Your task to perform on an android device: turn off translation in the chrome app Image 0: 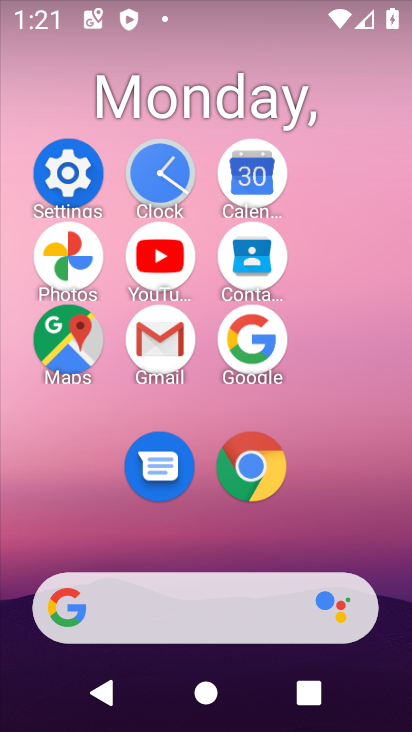
Step 0: click (273, 477)
Your task to perform on an android device: turn off translation in the chrome app Image 1: 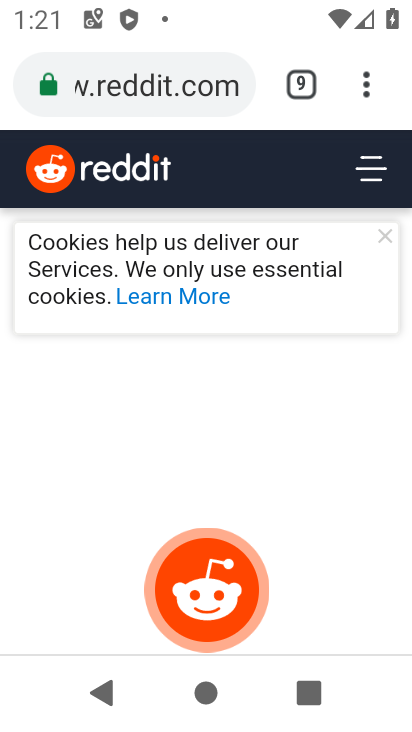
Step 1: click (369, 90)
Your task to perform on an android device: turn off translation in the chrome app Image 2: 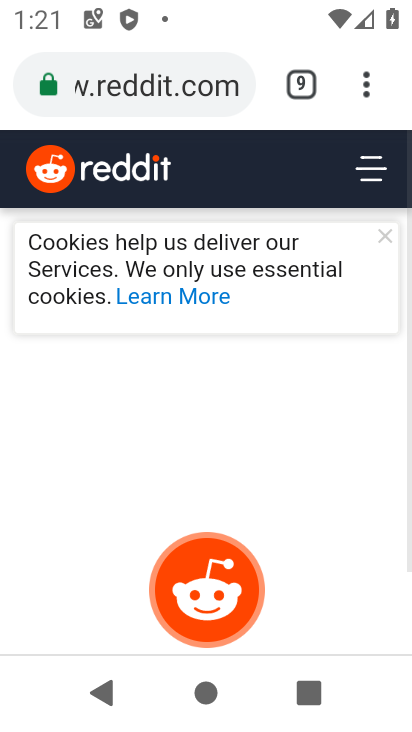
Step 2: click (351, 79)
Your task to perform on an android device: turn off translation in the chrome app Image 3: 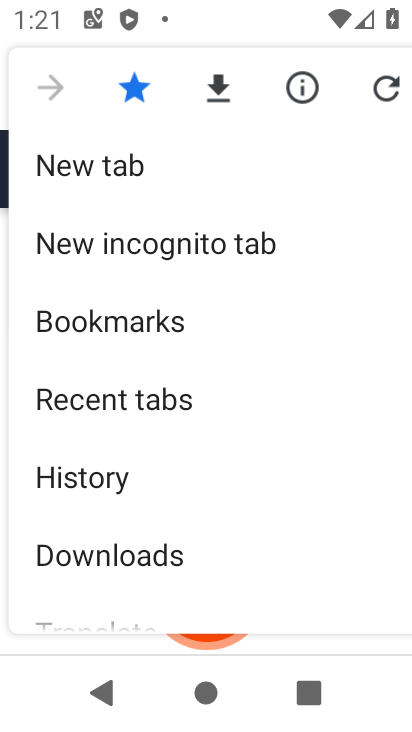
Step 3: drag from (209, 514) to (231, 81)
Your task to perform on an android device: turn off translation in the chrome app Image 4: 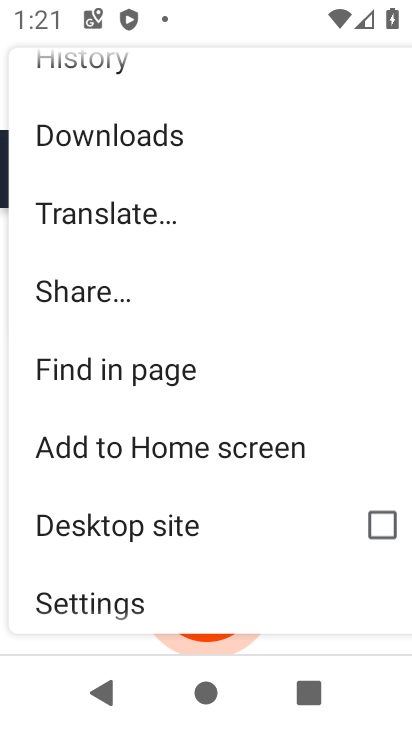
Step 4: click (105, 583)
Your task to perform on an android device: turn off translation in the chrome app Image 5: 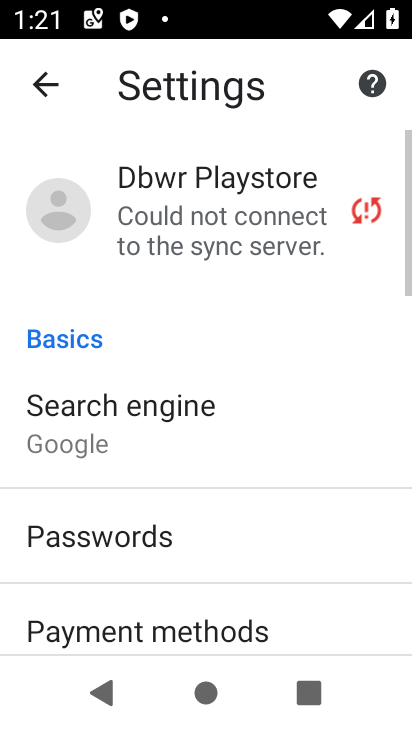
Step 5: drag from (126, 549) to (152, 165)
Your task to perform on an android device: turn off translation in the chrome app Image 6: 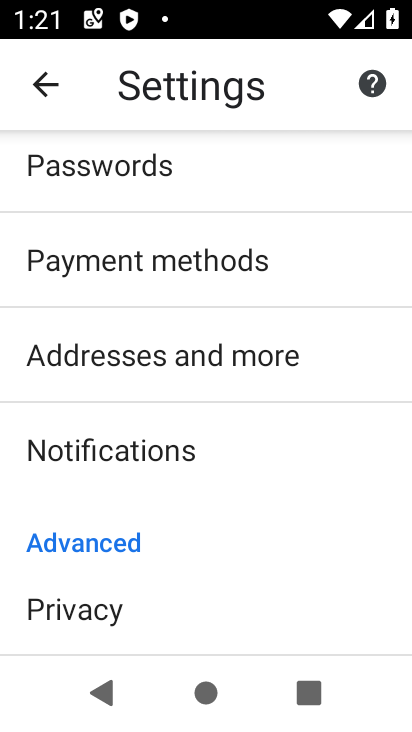
Step 6: drag from (144, 584) to (181, 244)
Your task to perform on an android device: turn off translation in the chrome app Image 7: 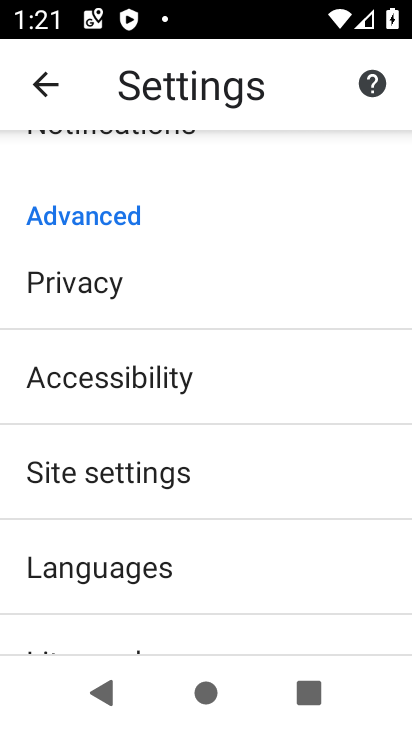
Step 7: click (150, 541)
Your task to perform on an android device: turn off translation in the chrome app Image 8: 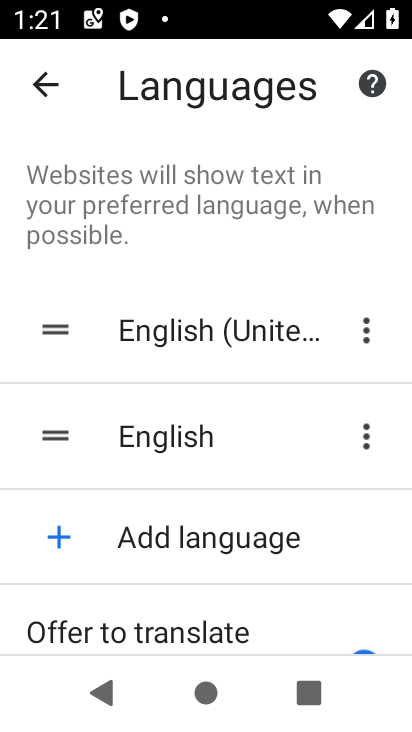
Step 8: drag from (331, 585) to (323, 254)
Your task to perform on an android device: turn off translation in the chrome app Image 9: 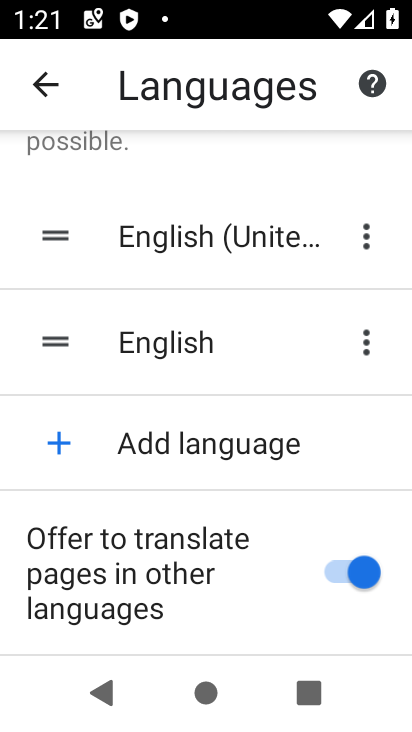
Step 9: click (379, 565)
Your task to perform on an android device: turn off translation in the chrome app Image 10: 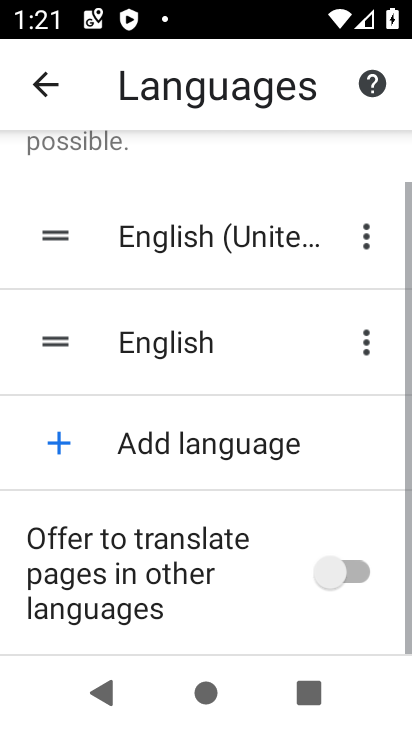
Step 10: task complete